Your task to perform on an android device: toggle priority inbox in the gmail app Image 0: 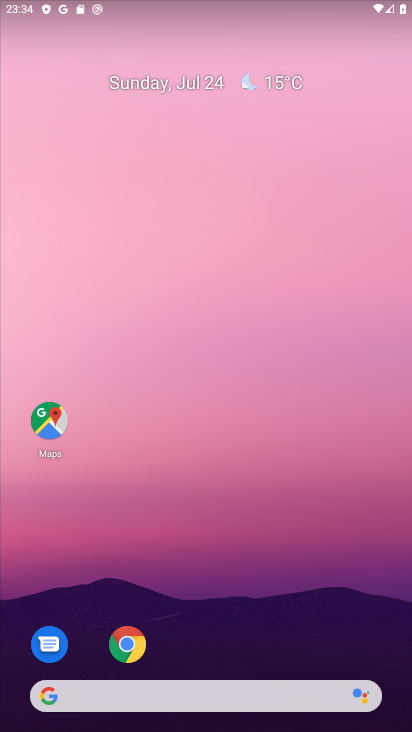
Step 0: drag from (229, 727) to (227, 677)
Your task to perform on an android device: toggle priority inbox in the gmail app Image 1: 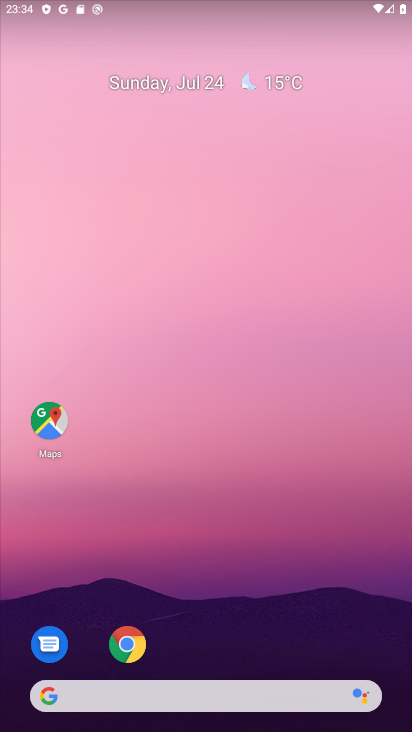
Step 1: drag from (201, 718) to (176, 5)
Your task to perform on an android device: toggle priority inbox in the gmail app Image 2: 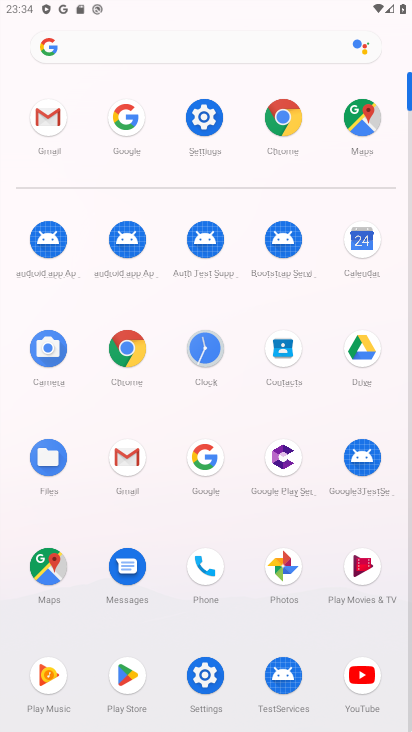
Step 2: click (131, 454)
Your task to perform on an android device: toggle priority inbox in the gmail app Image 3: 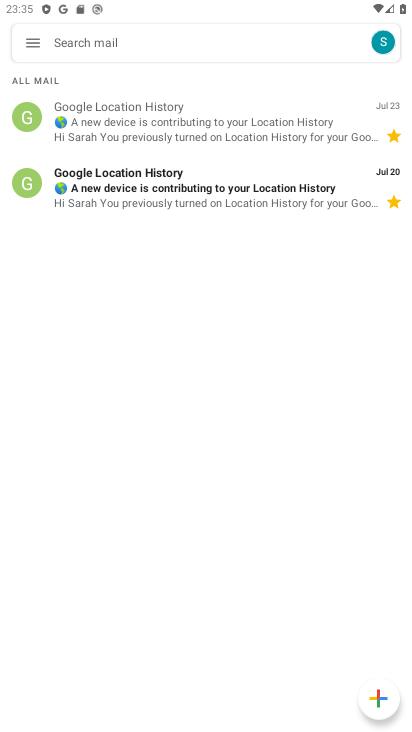
Step 3: click (31, 41)
Your task to perform on an android device: toggle priority inbox in the gmail app Image 4: 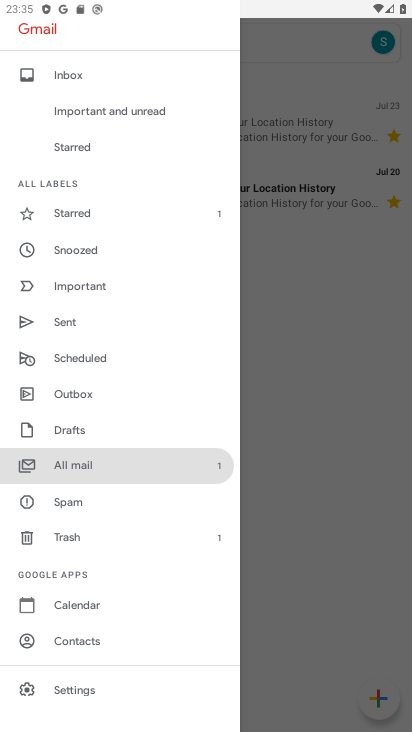
Step 4: click (71, 687)
Your task to perform on an android device: toggle priority inbox in the gmail app Image 5: 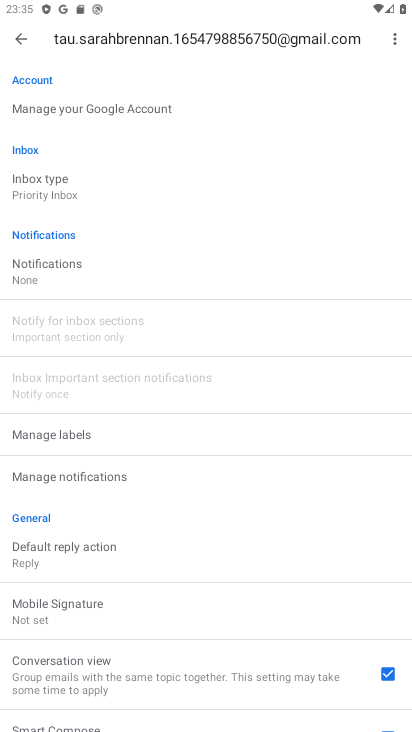
Step 5: click (31, 182)
Your task to perform on an android device: toggle priority inbox in the gmail app Image 6: 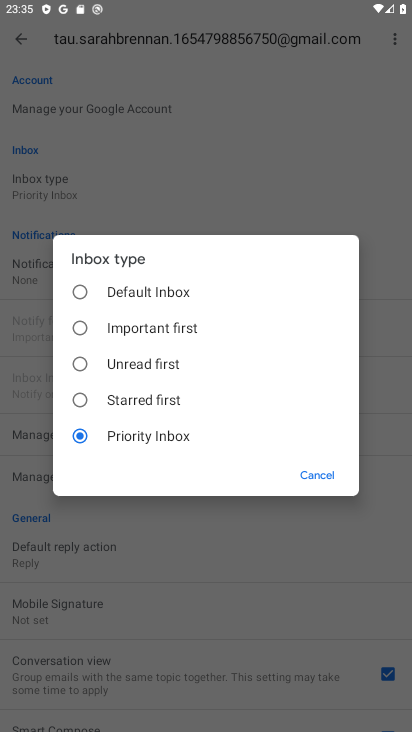
Step 6: click (80, 289)
Your task to perform on an android device: toggle priority inbox in the gmail app Image 7: 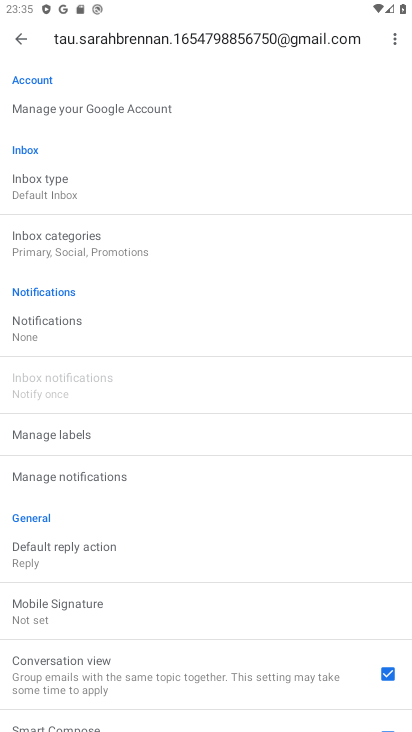
Step 7: task complete